Your task to perform on an android device: Search for vegetarian restaurants on Maps Image 0: 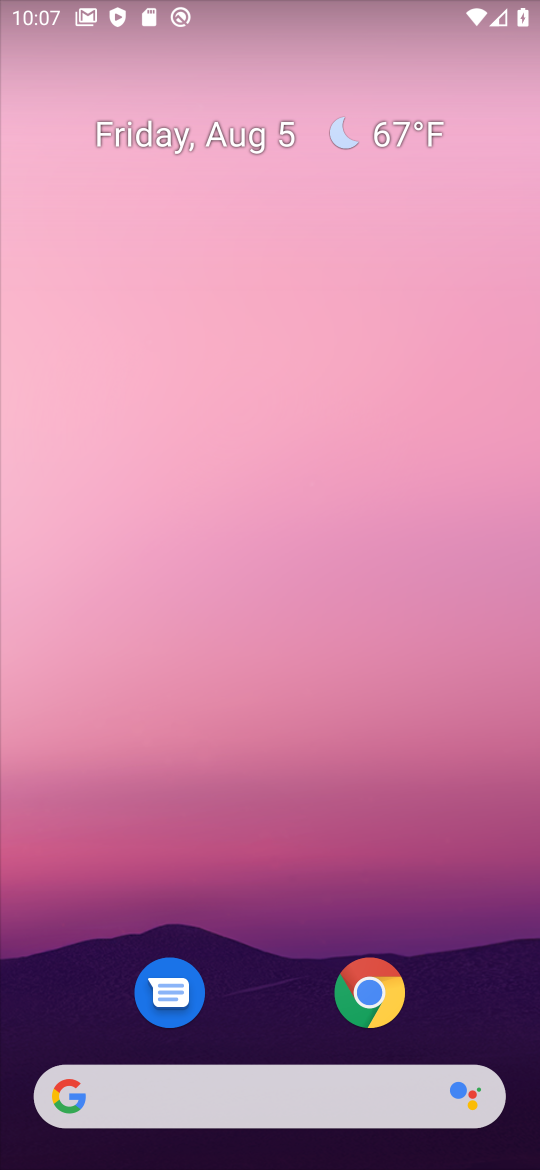
Step 0: click (417, 223)
Your task to perform on an android device: Search for vegetarian restaurants on Maps Image 1: 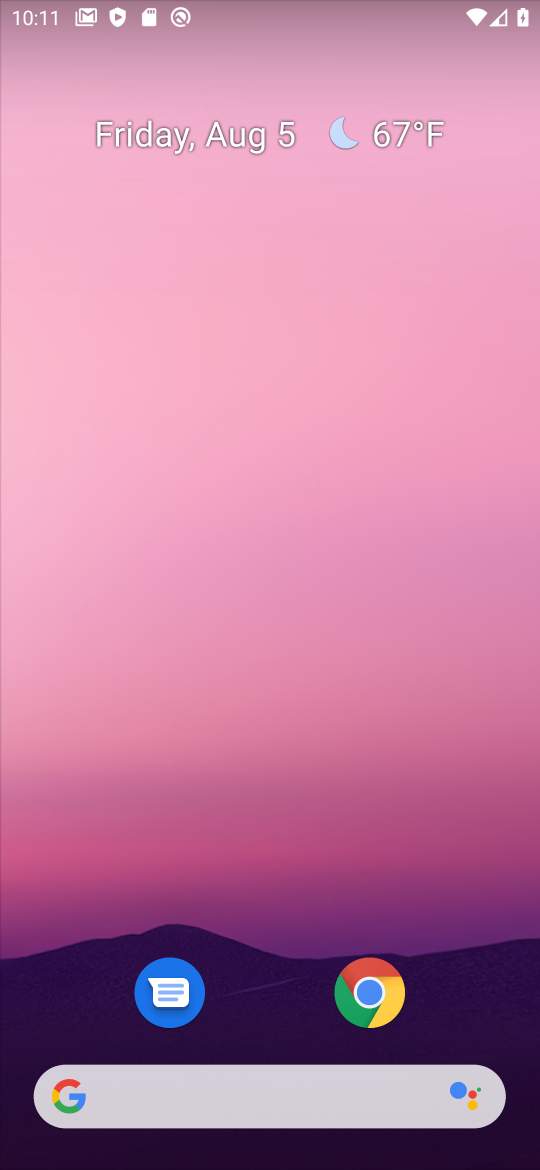
Step 1: drag from (224, 1061) to (231, 374)
Your task to perform on an android device: Search for vegetarian restaurants on Maps Image 2: 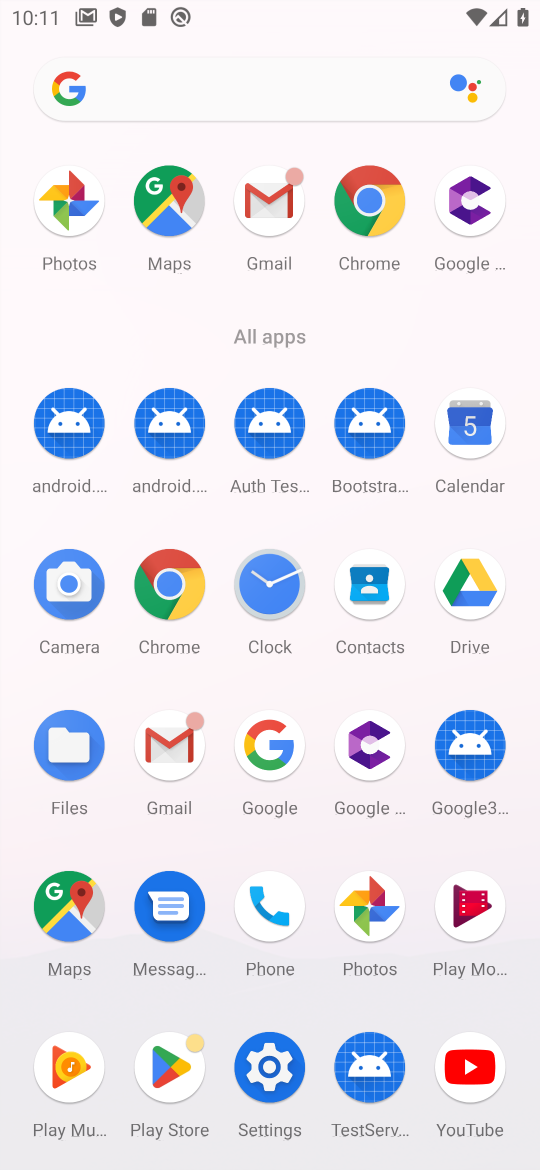
Step 2: click (192, 207)
Your task to perform on an android device: Search for vegetarian restaurants on Maps Image 3: 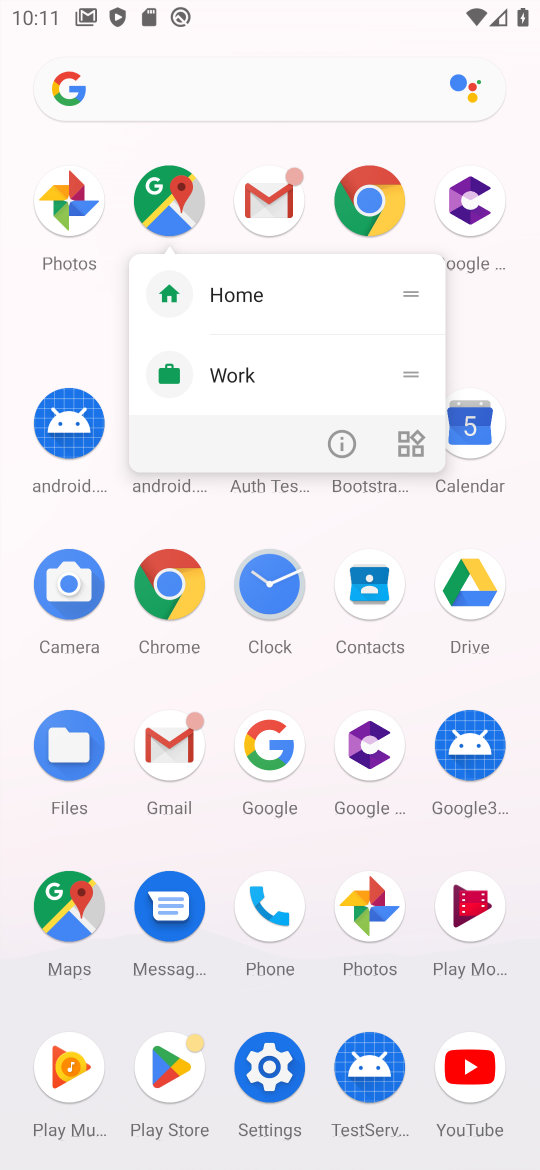
Step 3: click (154, 199)
Your task to perform on an android device: Search for vegetarian restaurants on Maps Image 4: 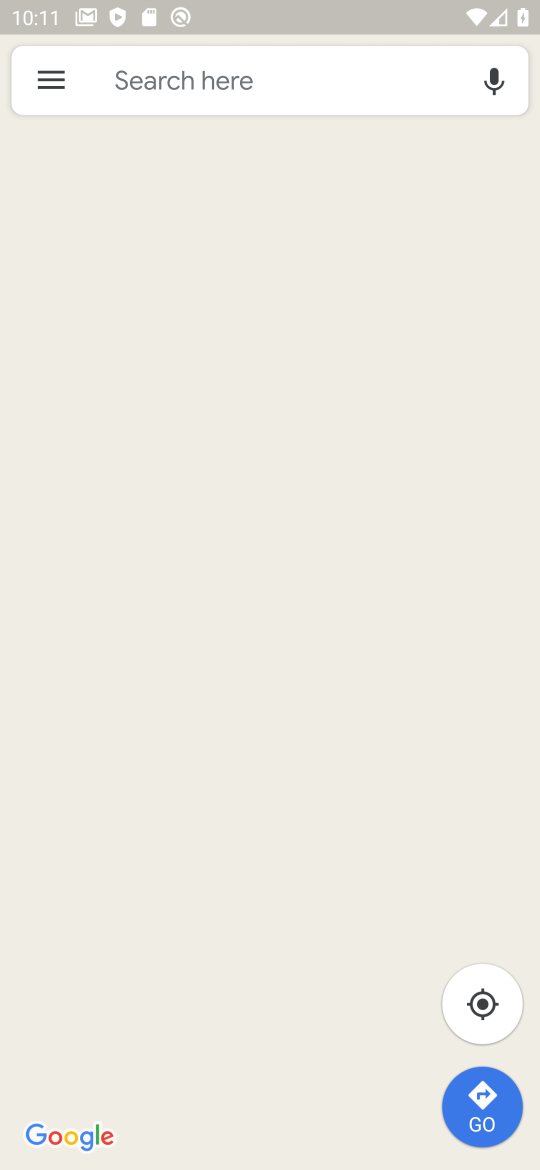
Step 4: click (277, 78)
Your task to perform on an android device: Search for vegetarian restaurants on Maps Image 5: 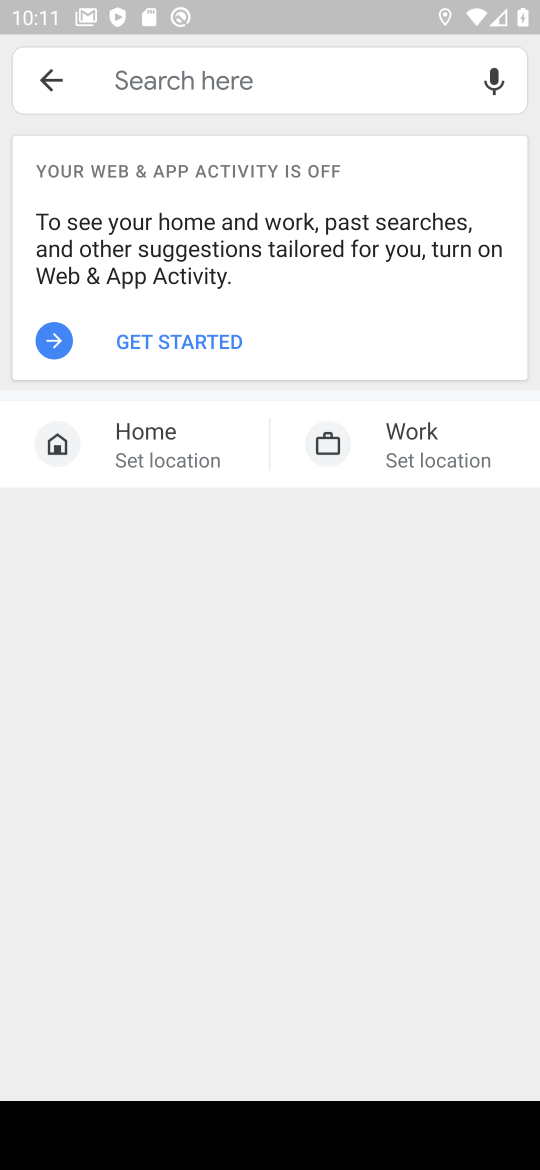
Step 5: type "vegetarian restaurants"
Your task to perform on an android device: Search for vegetarian restaurants on Maps Image 6: 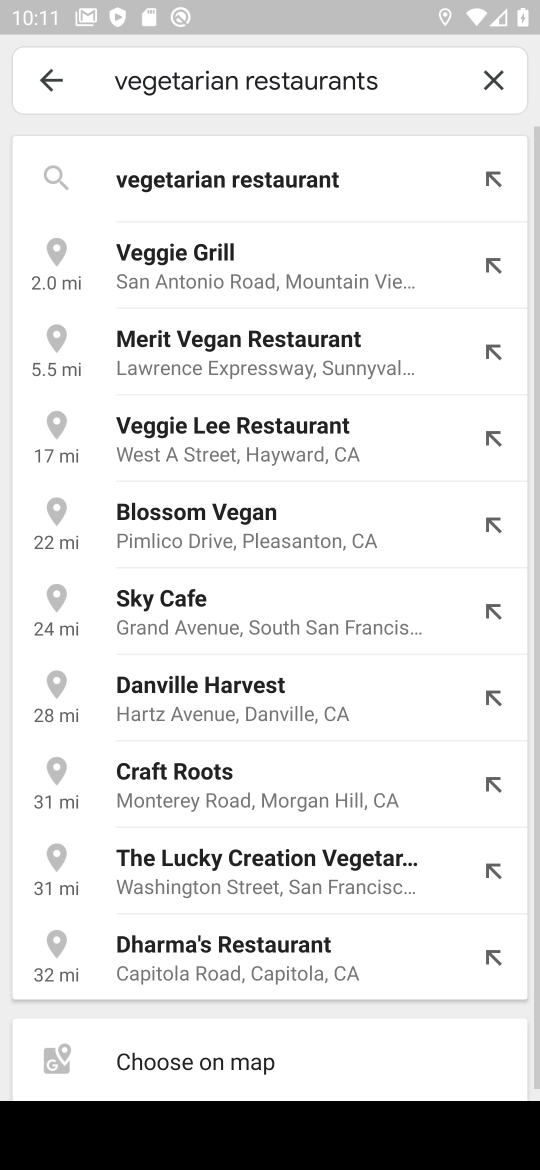
Step 6: task complete